Your task to perform on an android device: set default search engine in the chrome app Image 0: 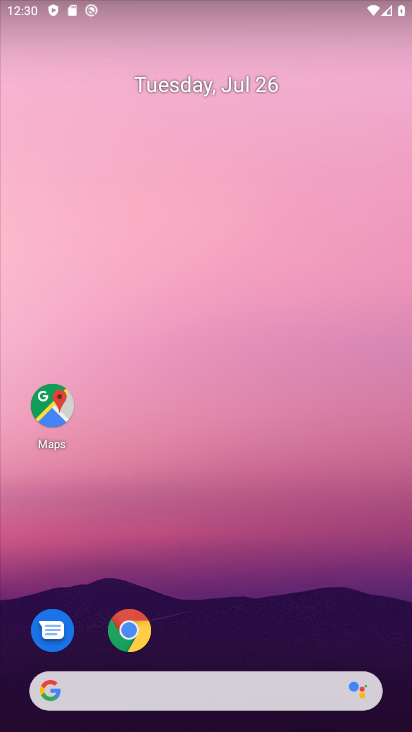
Step 0: click (128, 635)
Your task to perform on an android device: set default search engine in the chrome app Image 1: 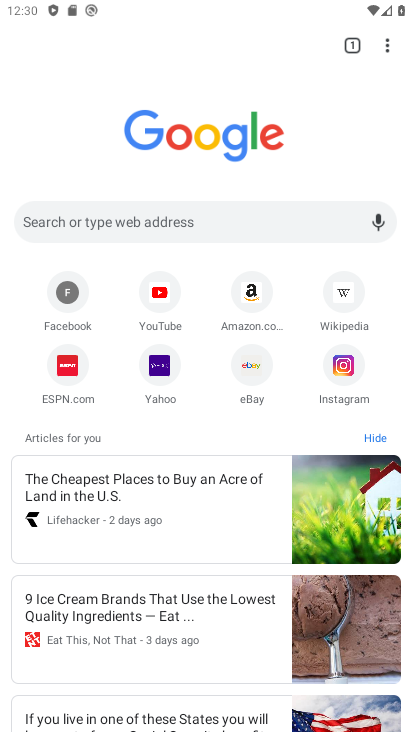
Step 1: click (389, 46)
Your task to perform on an android device: set default search engine in the chrome app Image 2: 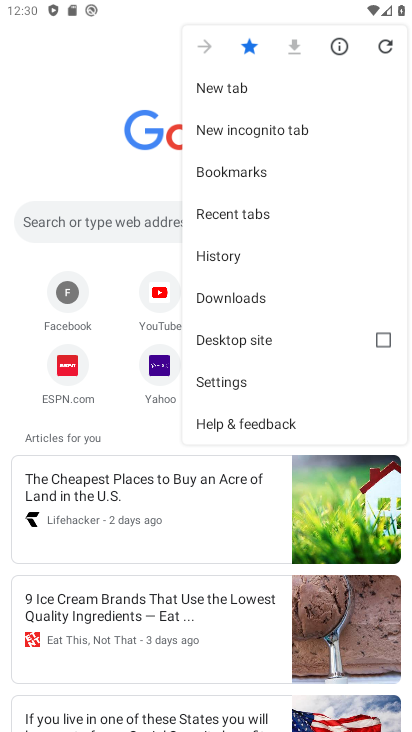
Step 2: click (225, 381)
Your task to perform on an android device: set default search engine in the chrome app Image 3: 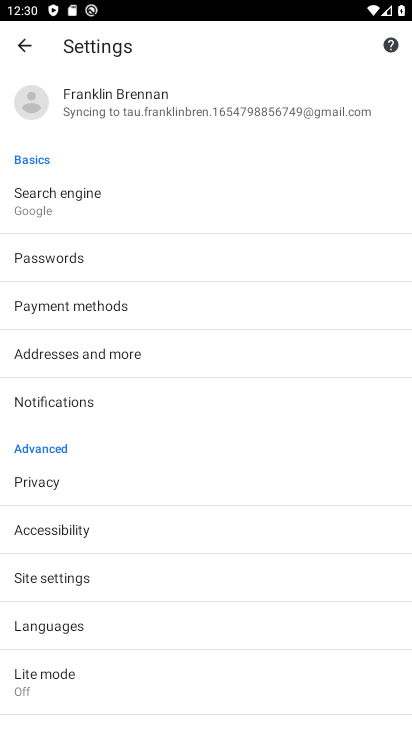
Step 3: click (36, 190)
Your task to perform on an android device: set default search engine in the chrome app Image 4: 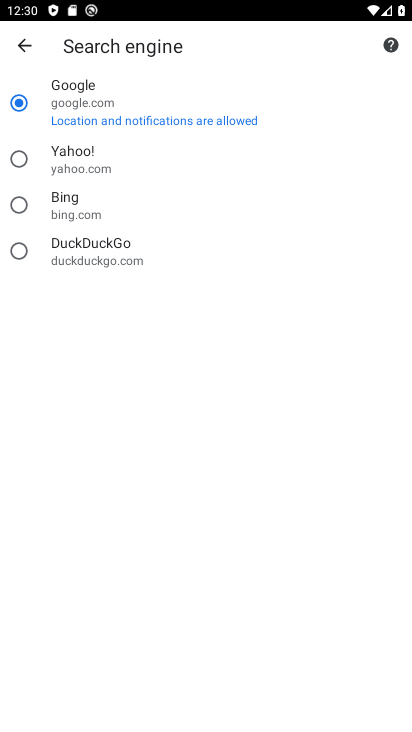
Step 4: click (21, 154)
Your task to perform on an android device: set default search engine in the chrome app Image 5: 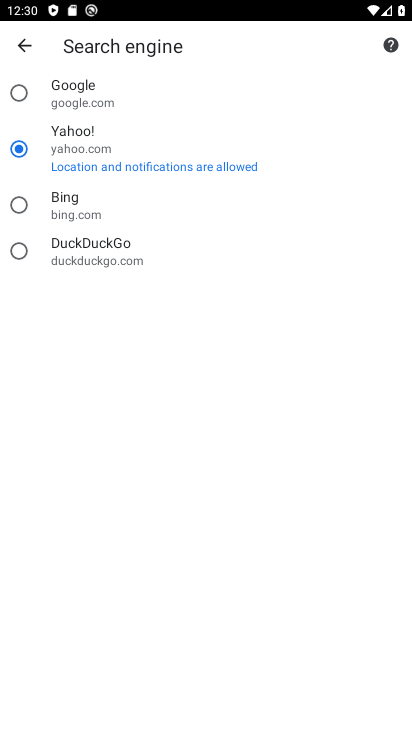
Step 5: task complete